Your task to perform on an android device: Go to calendar. Show me events next week Image 0: 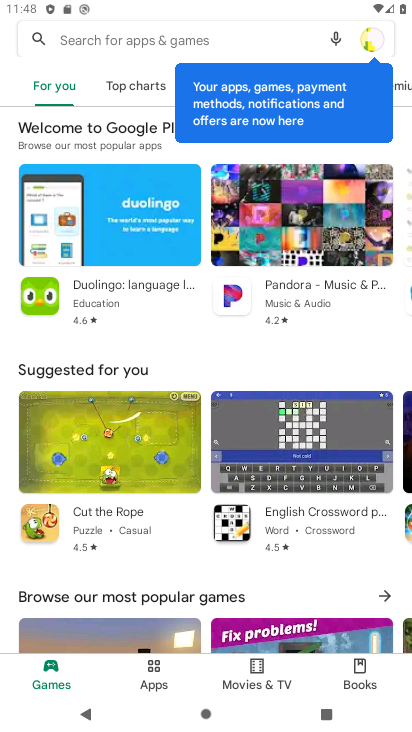
Step 0: press back button
Your task to perform on an android device: Go to calendar. Show me events next week Image 1: 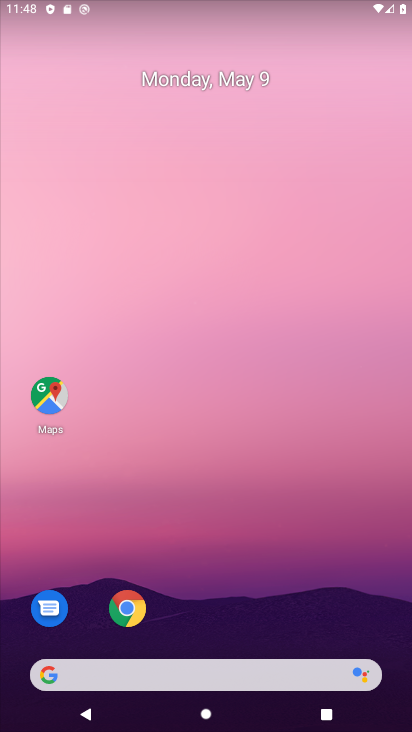
Step 1: drag from (284, 513) to (197, 5)
Your task to perform on an android device: Go to calendar. Show me events next week Image 2: 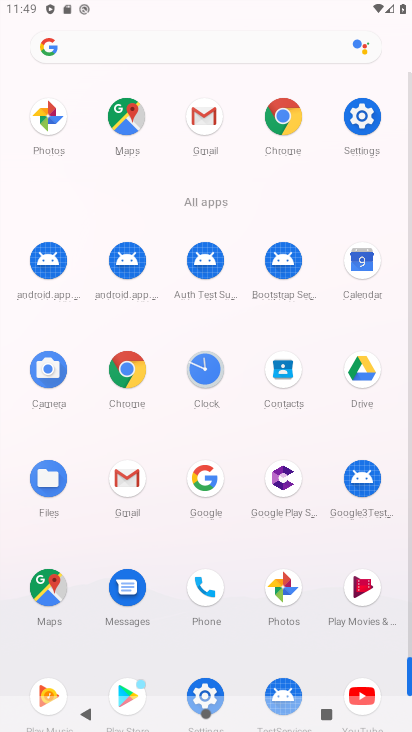
Step 2: drag from (9, 543) to (8, 183)
Your task to perform on an android device: Go to calendar. Show me events next week Image 3: 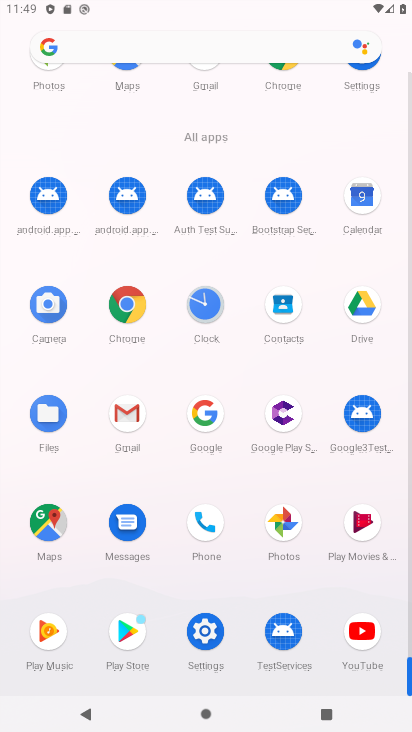
Step 3: drag from (5, 583) to (4, 286)
Your task to perform on an android device: Go to calendar. Show me events next week Image 4: 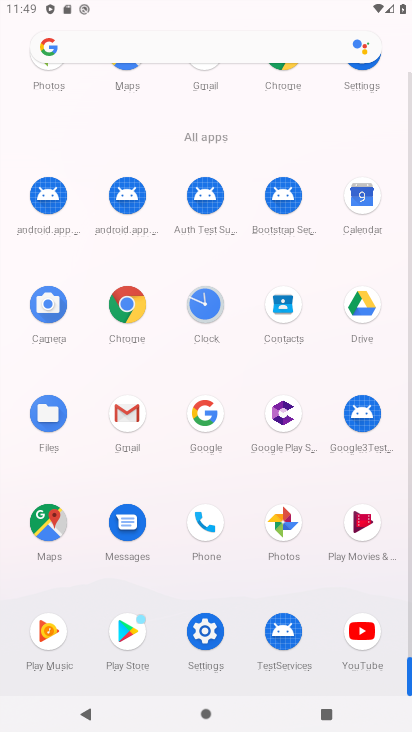
Step 4: click (365, 195)
Your task to perform on an android device: Go to calendar. Show me events next week Image 5: 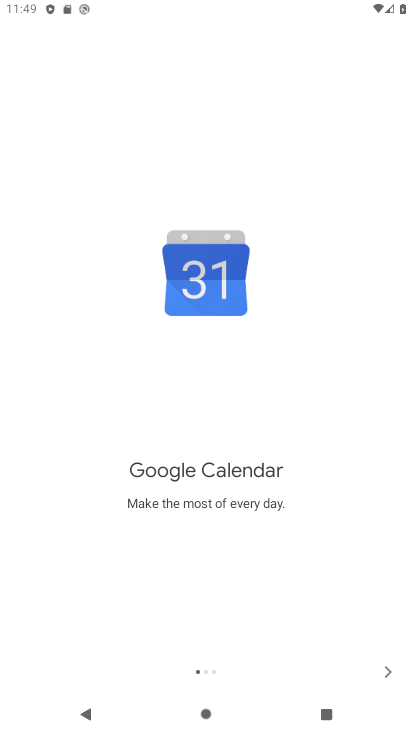
Step 5: click (385, 669)
Your task to perform on an android device: Go to calendar. Show me events next week Image 6: 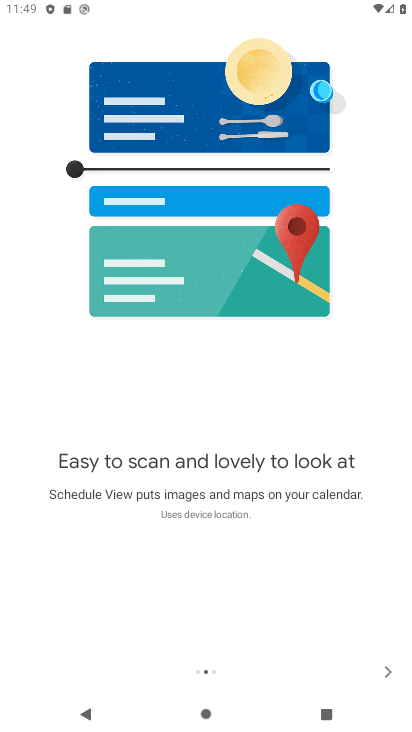
Step 6: click (385, 669)
Your task to perform on an android device: Go to calendar. Show me events next week Image 7: 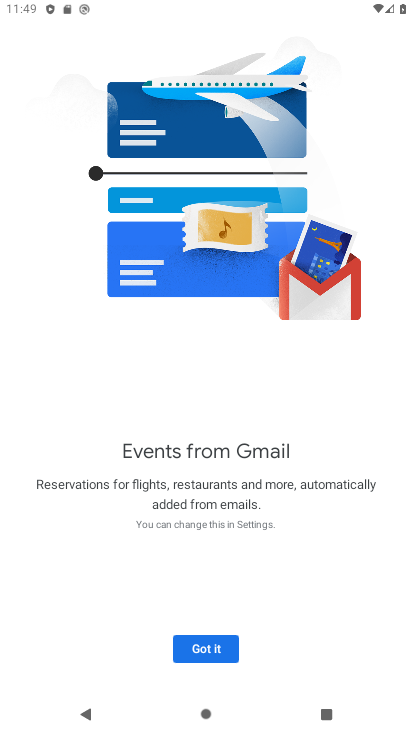
Step 7: click (210, 640)
Your task to perform on an android device: Go to calendar. Show me events next week Image 8: 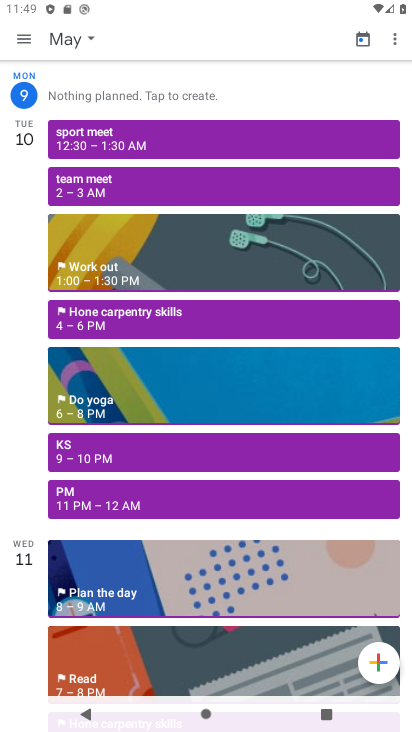
Step 8: click (206, 509)
Your task to perform on an android device: Go to calendar. Show me events next week Image 9: 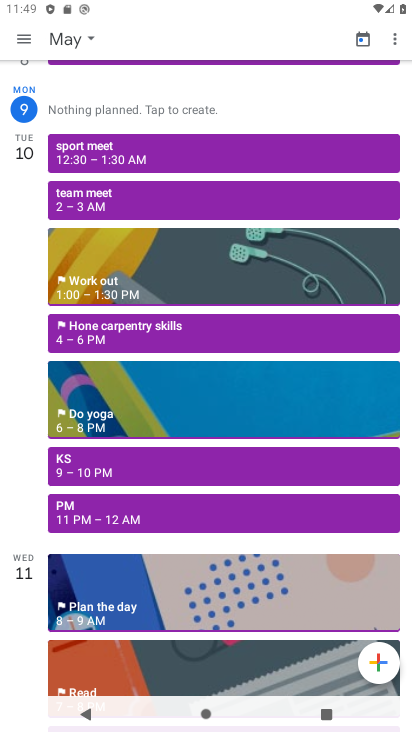
Step 9: click (29, 35)
Your task to perform on an android device: Go to calendar. Show me events next week Image 10: 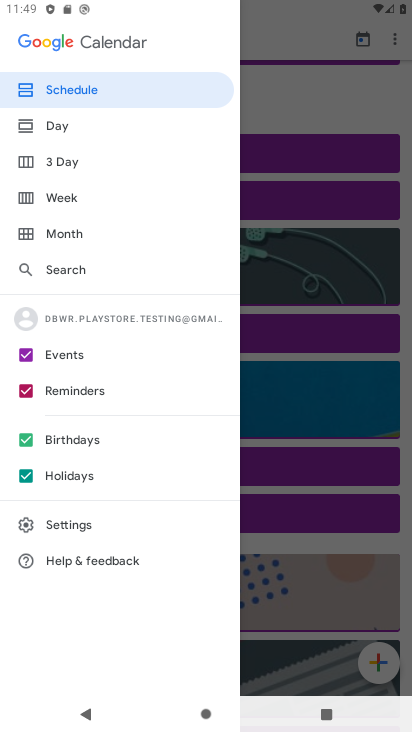
Step 10: click (106, 199)
Your task to perform on an android device: Go to calendar. Show me events next week Image 11: 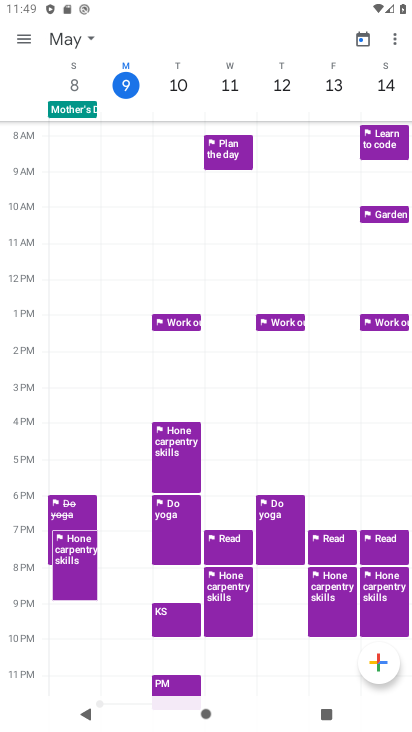
Step 11: task complete